Your task to perform on an android device: Search for Italian restaurants on Maps Image 0: 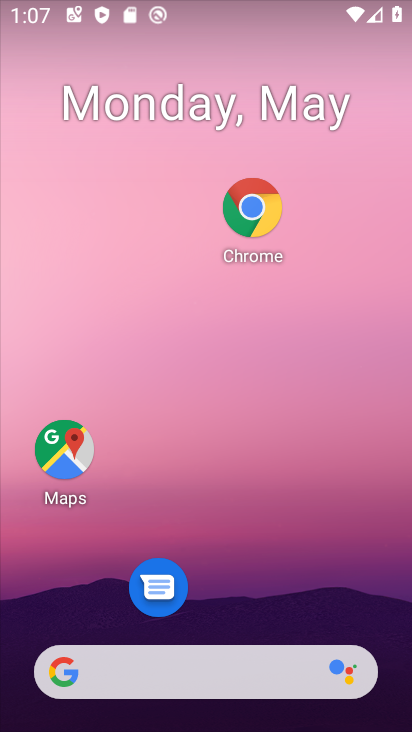
Step 0: click (65, 449)
Your task to perform on an android device: Search for Italian restaurants on Maps Image 1: 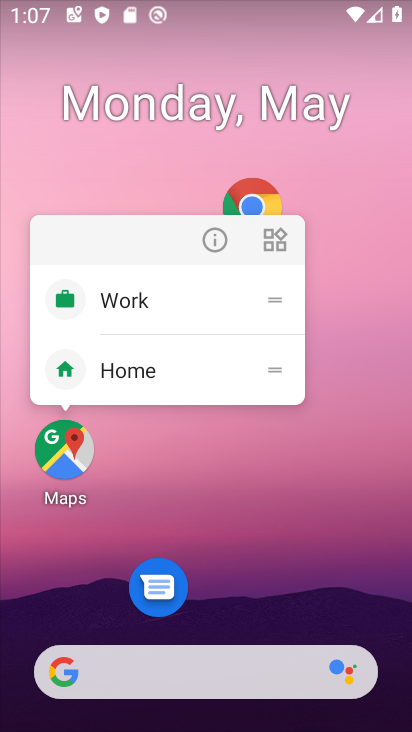
Step 1: click (65, 449)
Your task to perform on an android device: Search for Italian restaurants on Maps Image 2: 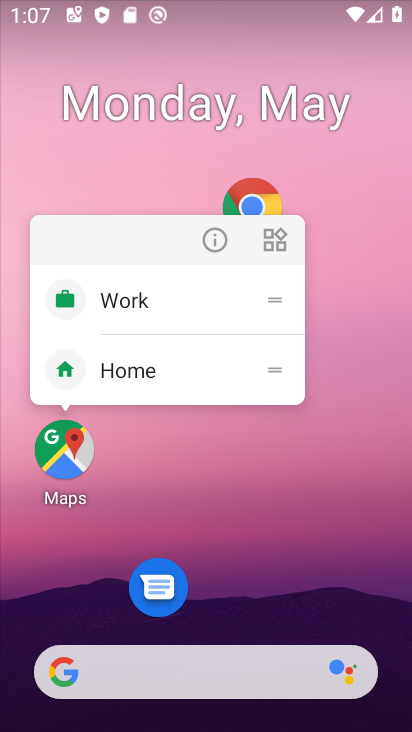
Step 2: click (65, 449)
Your task to perform on an android device: Search for Italian restaurants on Maps Image 3: 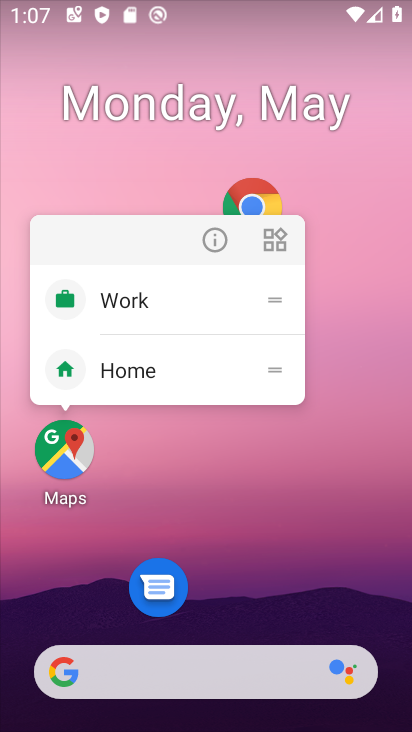
Step 3: click (65, 449)
Your task to perform on an android device: Search for Italian restaurants on Maps Image 4: 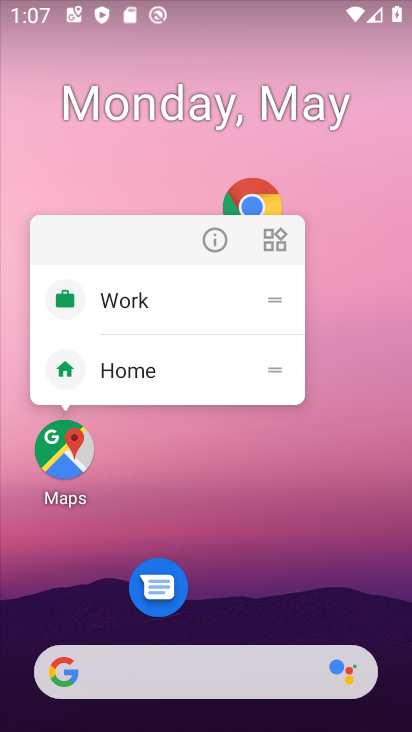
Step 4: click (65, 449)
Your task to perform on an android device: Search for Italian restaurants on Maps Image 5: 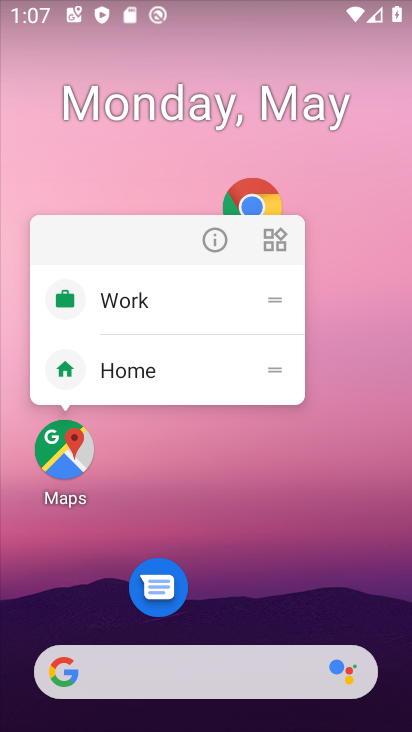
Step 5: click (65, 449)
Your task to perform on an android device: Search for Italian restaurants on Maps Image 6: 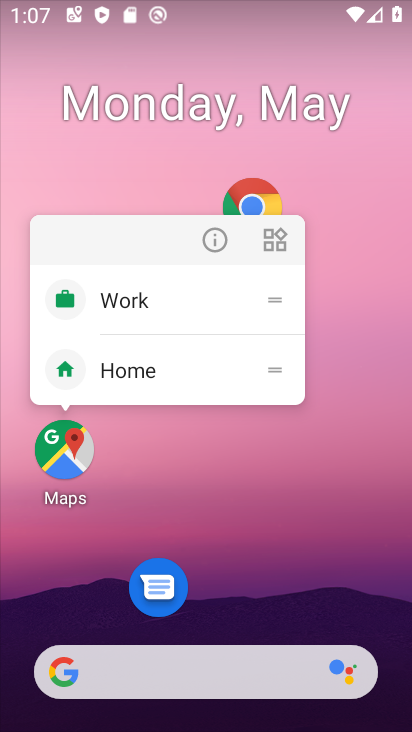
Step 6: click (65, 449)
Your task to perform on an android device: Search for Italian restaurants on Maps Image 7: 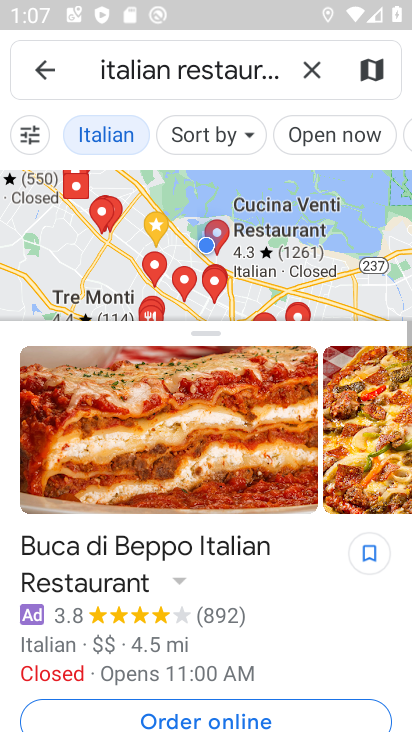
Step 7: task complete